Your task to perform on an android device: Go to privacy settings Image 0: 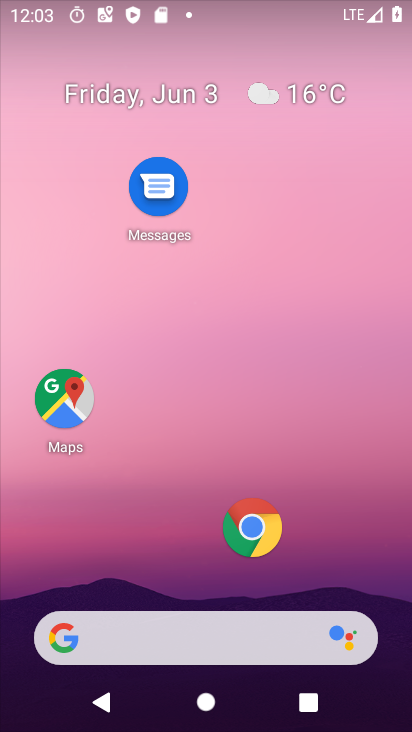
Step 0: press home button
Your task to perform on an android device: Go to privacy settings Image 1: 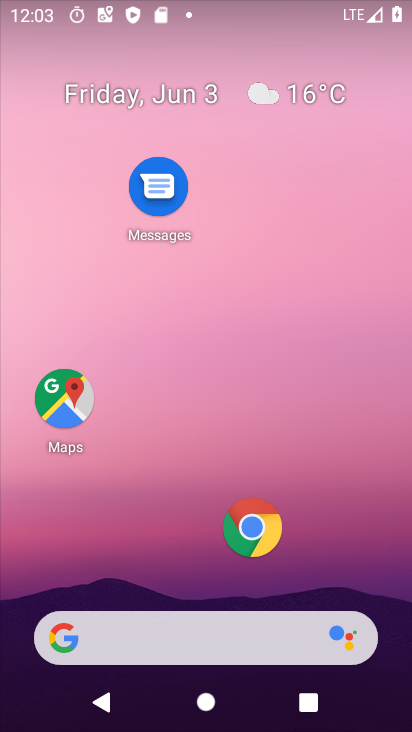
Step 1: drag from (302, 577) to (309, 67)
Your task to perform on an android device: Go to privacy settings Image 2: 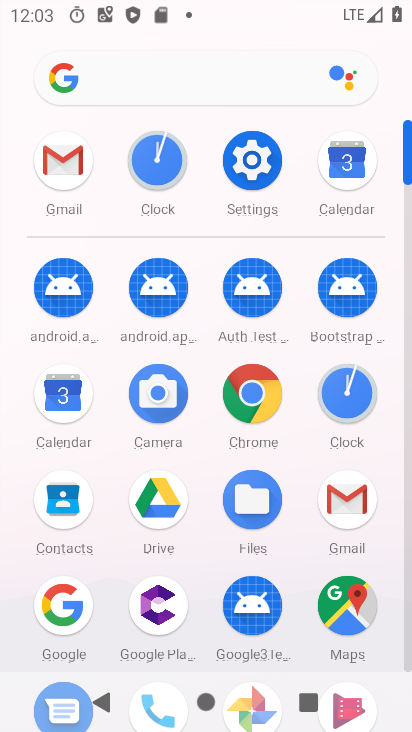
Step 2: click (248, 154)
Your task to perform on an android device: Go to privacy settings Image 3: 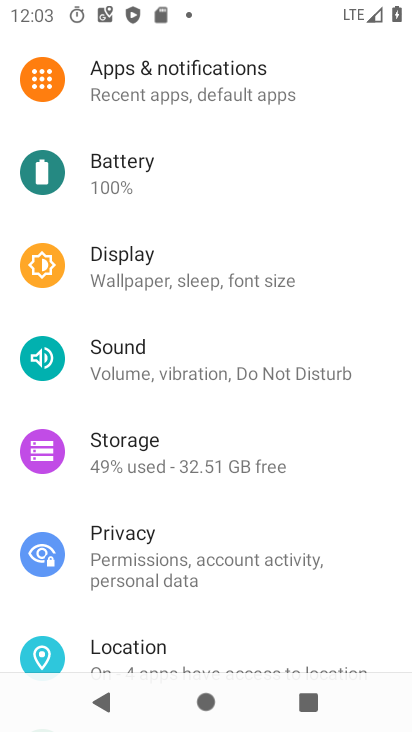
Step 3: click (174, 535)
Your task to perform on an android device: Go to privacy settings Image 4: 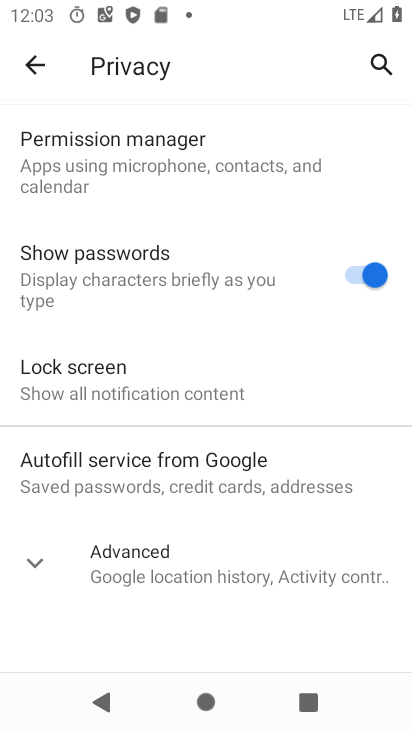
Step 4: click (36, 552)
Your task to perform on an android device: Go to privacy settings Image 5: 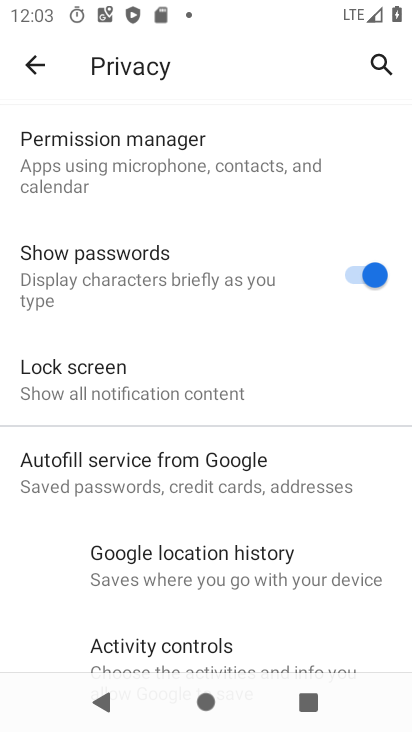
Step 5: task complete